Your task to perform on an android device: open chrome and create a bookmark for the current page Image 0: 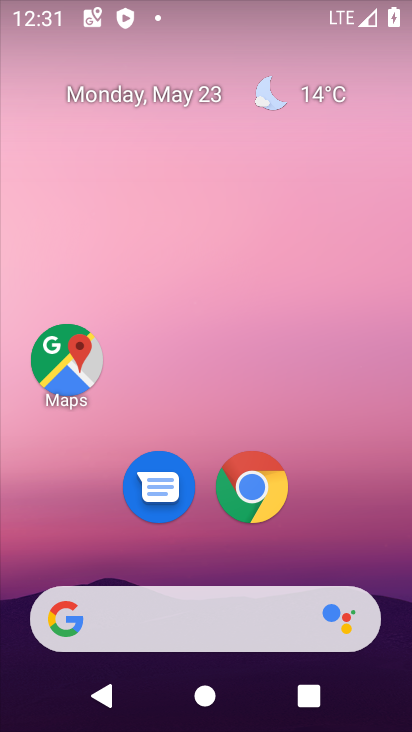
Step 0: click (258, 492)
Your task to perform on an android device: open chrome and create a bookmark for the current page Image 1: 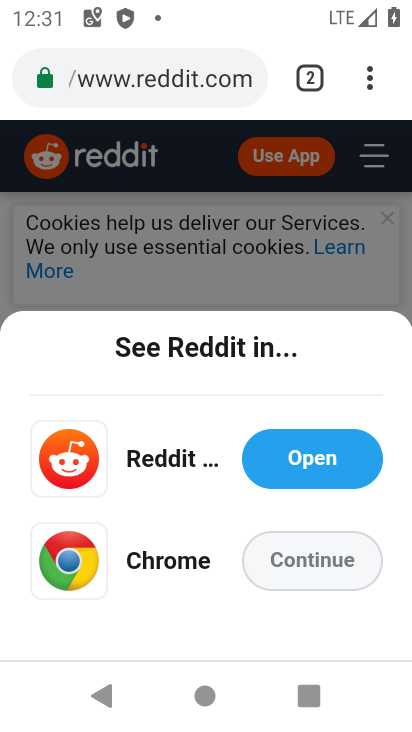
Step 1: click (368, 86)
Your task to perform on an android device: open chrome and create a bookmark for the current page Image 2: 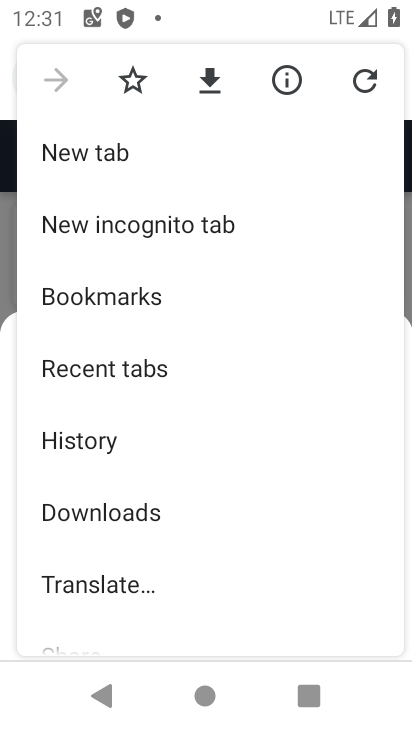
Step 2: click (133, 74)
Your task to perform on an android device: open chrome and create a bookmark for the current page Image 3: 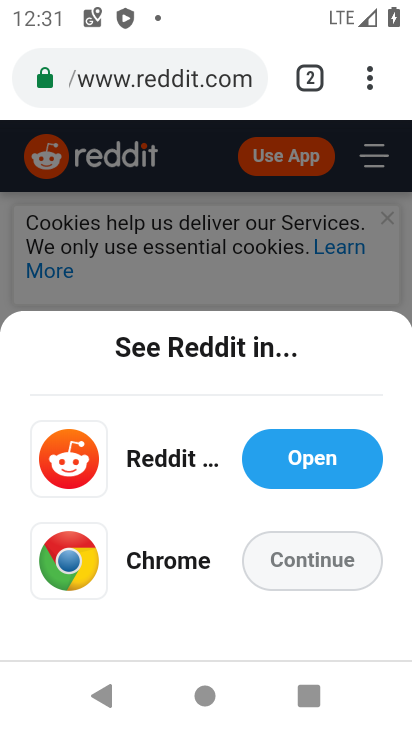
Step 3: task complete